Your task to perform on an android device: open app "Messenger Lite" (install if not already installed) Image 0: 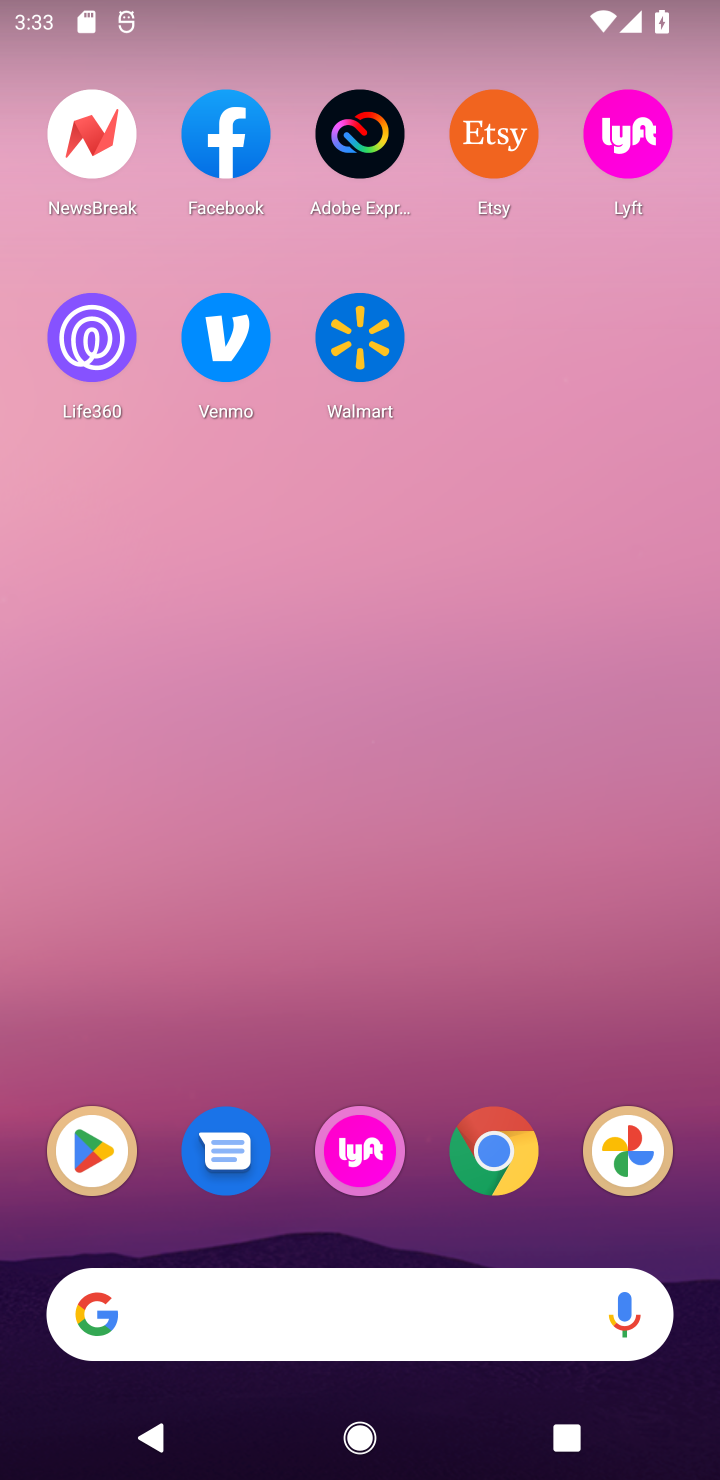
Step 0: press home button
Your task to perform on an android device: open app "Messenger Lite" (install if not already installed) Image 1: 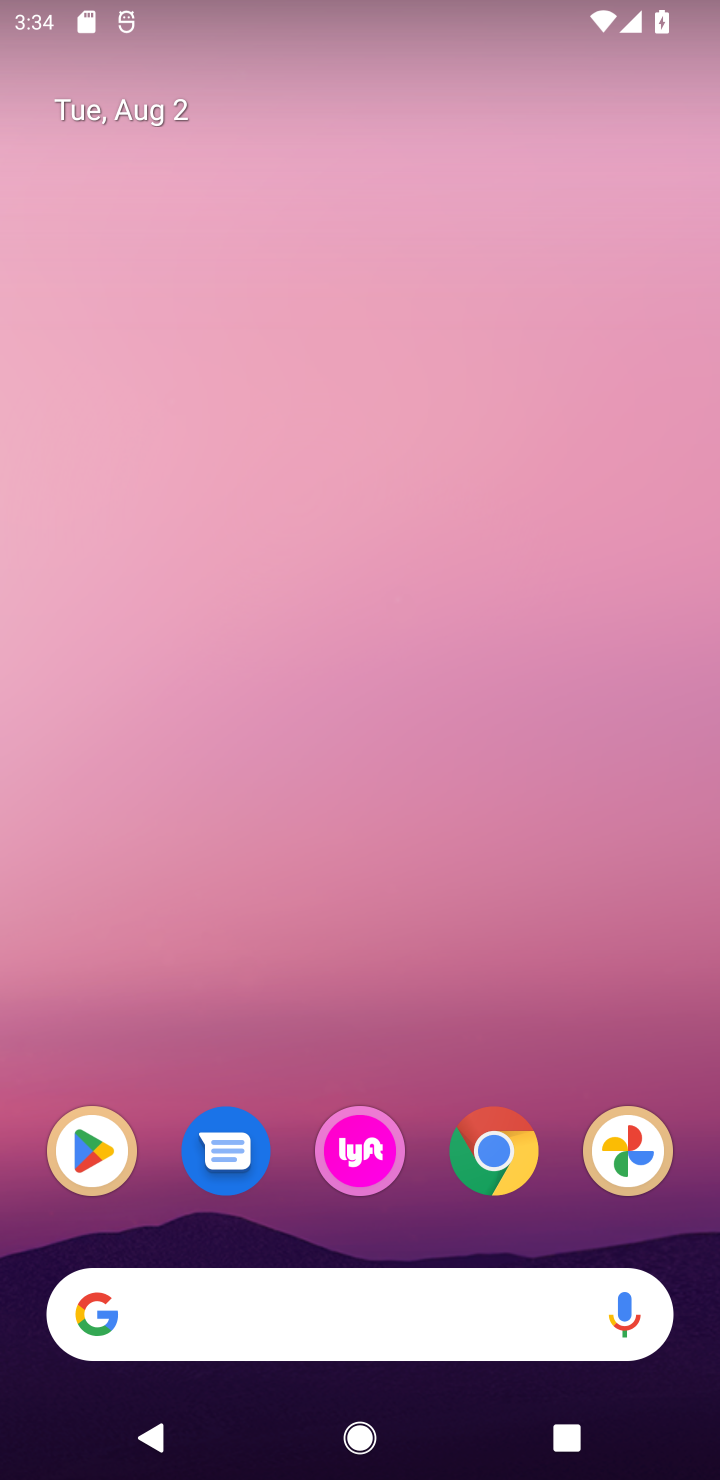
Step 1: drag from (422, 1449) to (316, 255)
Your task to perform on an android device: open app "Messenger Lite" (install if not already installed) Image 2: 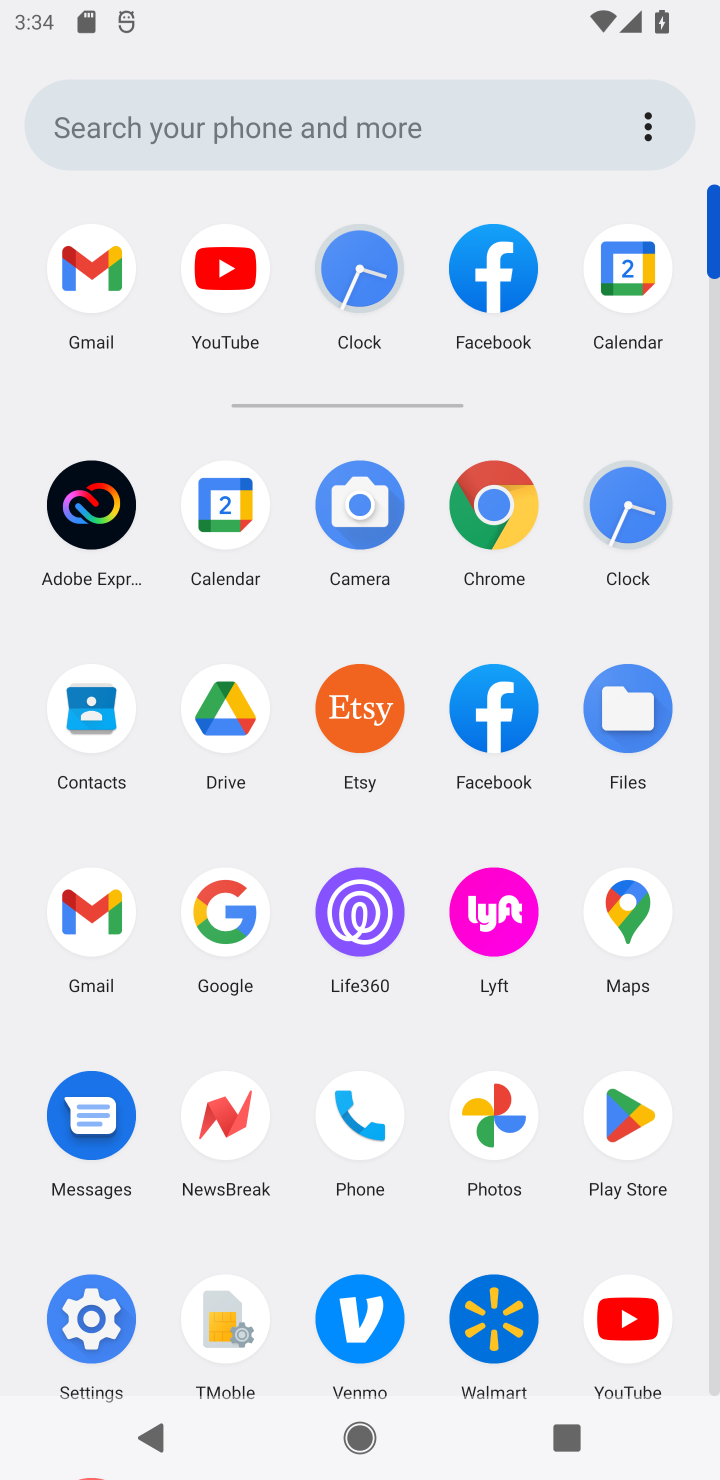
Step 2: click (626, 1102)
Your task to perform on an android device: open app "Messenger Lite" (install if not already installed) Image 3: 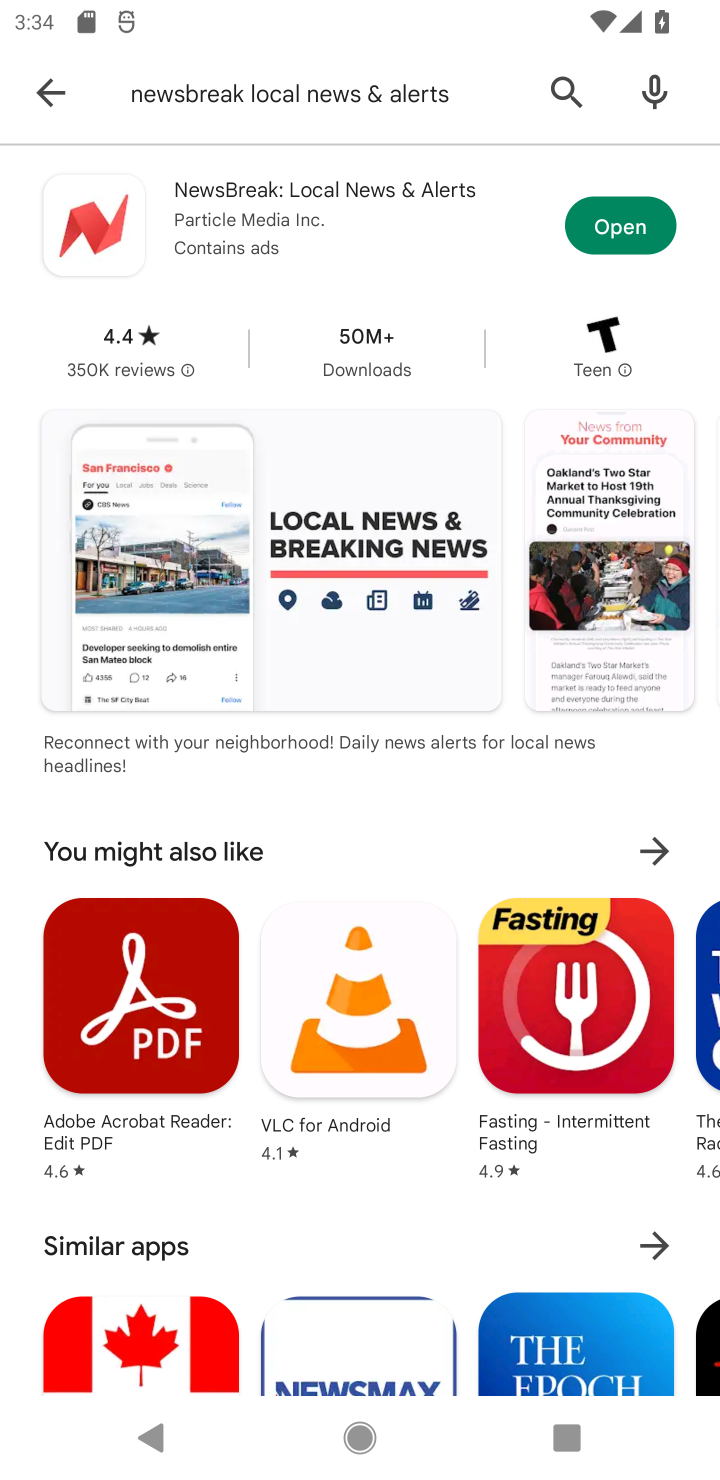
Step 3: click (563, 87)
Your task to perform on an android device: open app "Messenger Lite" (install if not already installed) Image 4: 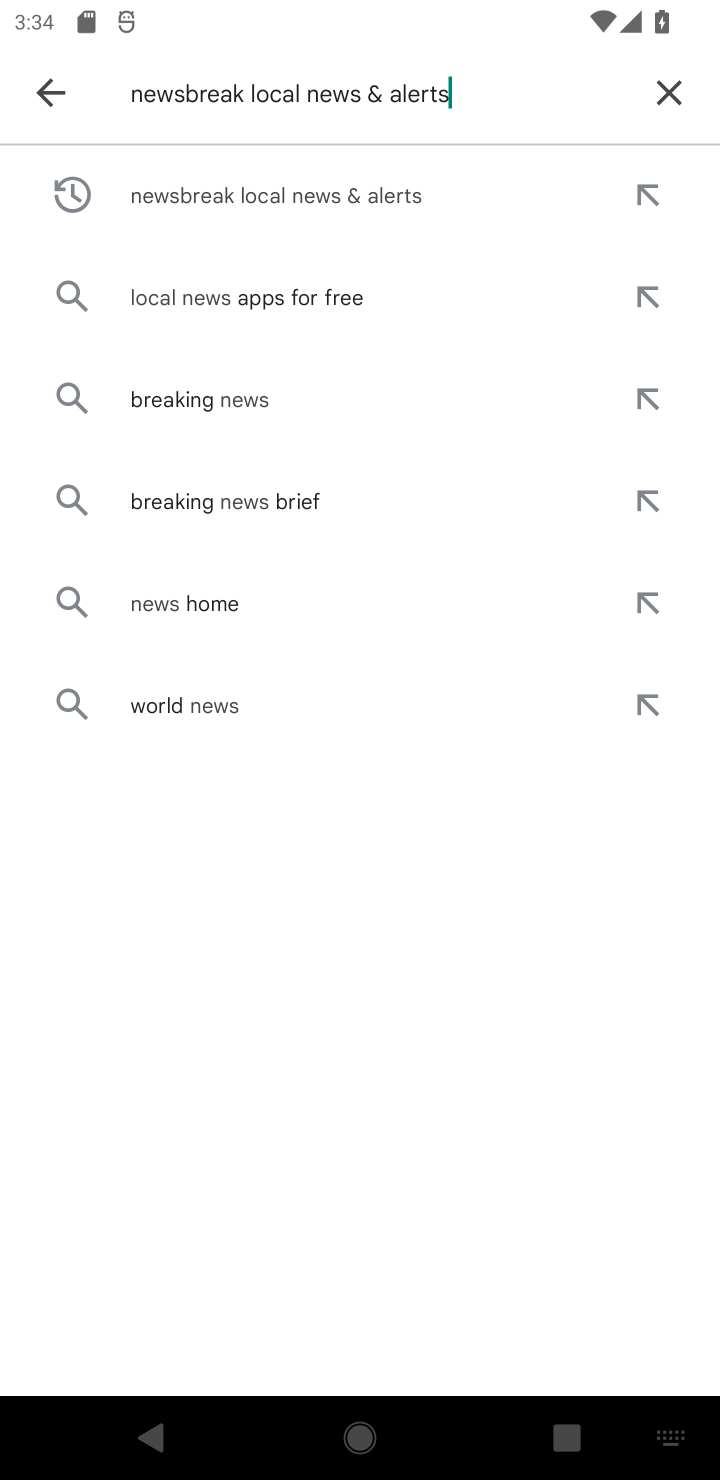
Step 4: click (671, 83)
Your task to perform on an android device: open app "Messenger Lite" (install if not already installed) Image 5: 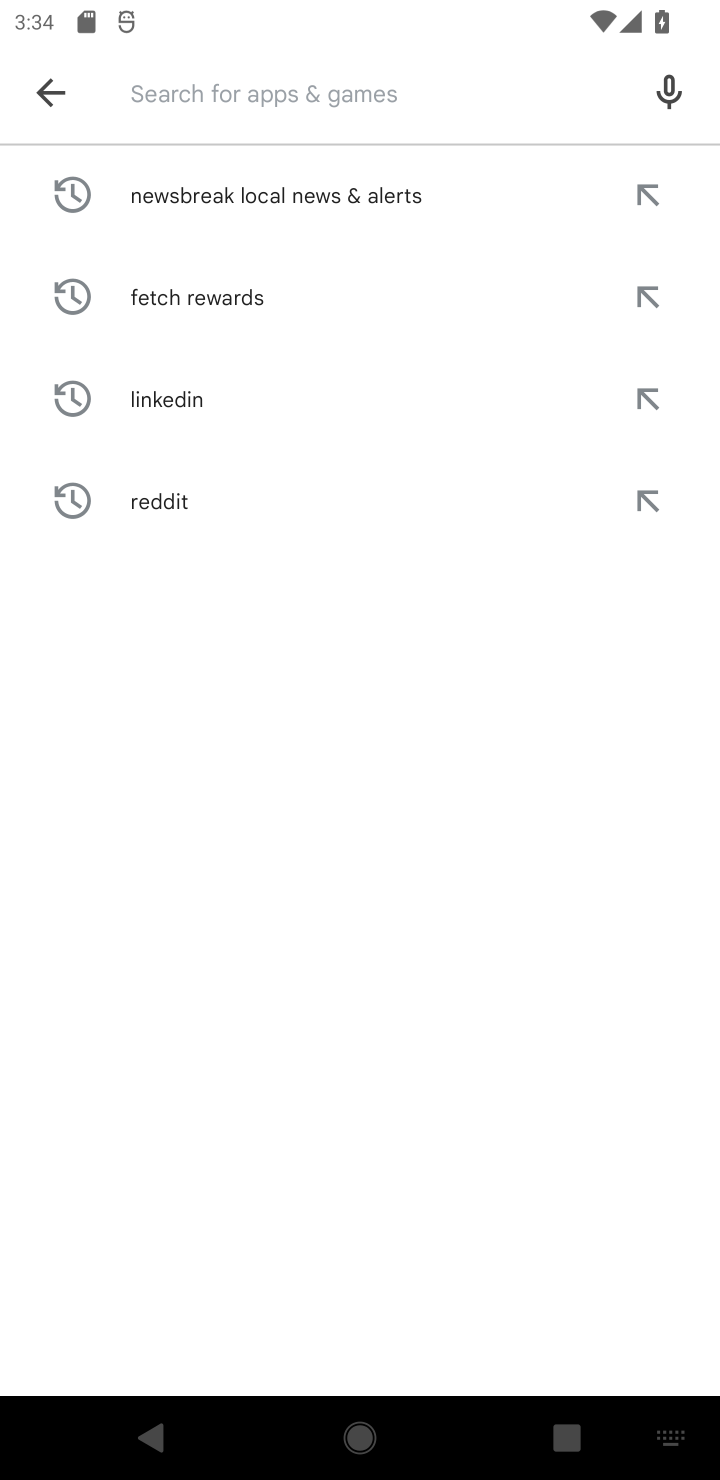
Step 5: type "Messenger Lite"
Your task to perform on an android device: open app "Messenger Lite" (install if not already installed) Image 6: 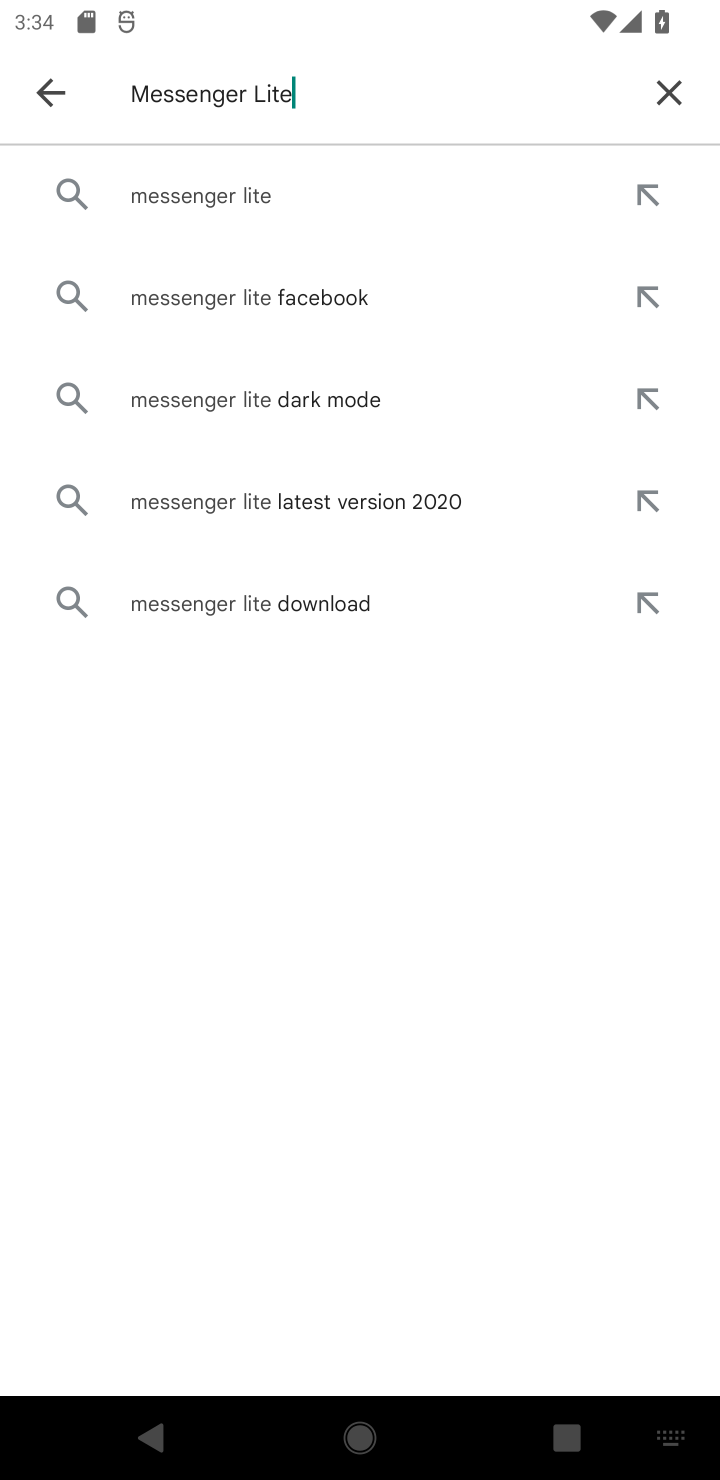
Step 6: click (201, 190)
Your task to perform on an android device: open app "Messenger Lite" (install if not already installed) Image 7: 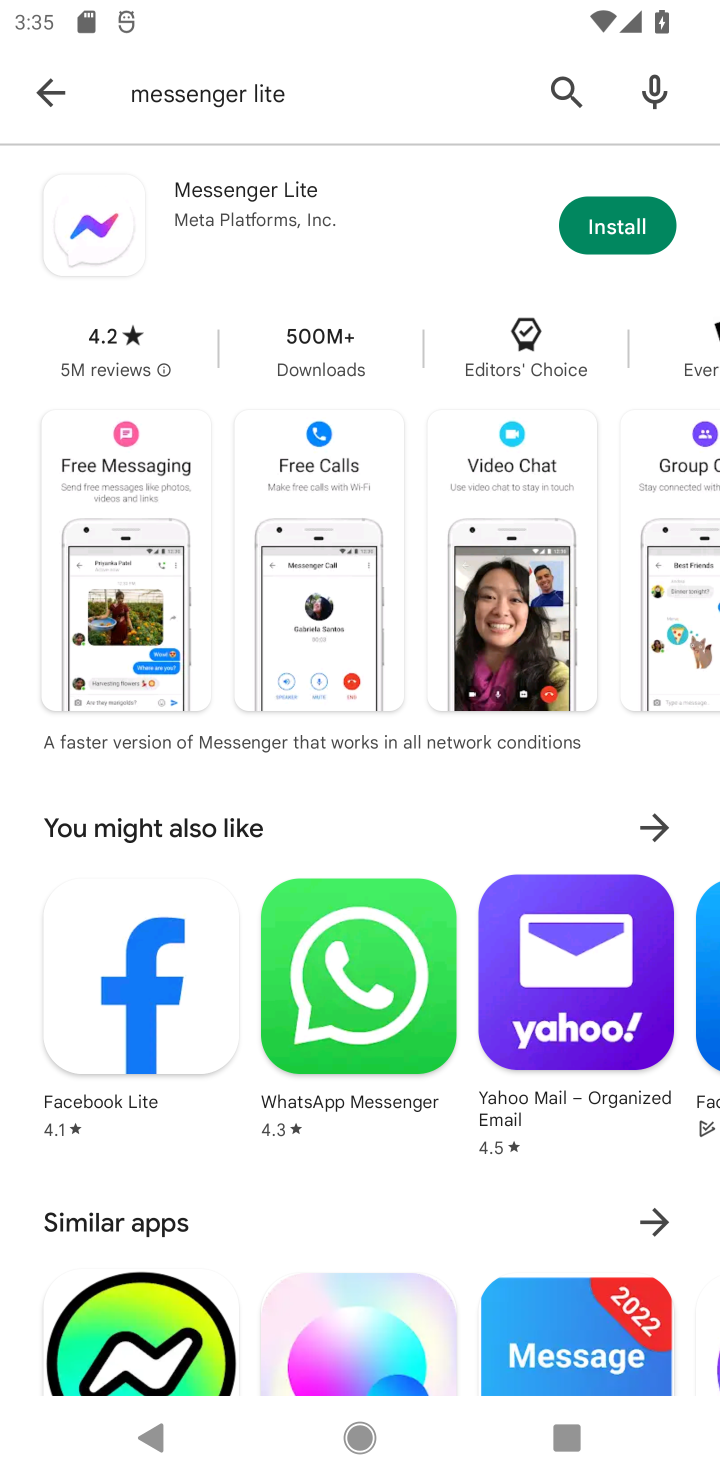
Step 7: click (633, 216)
Your task to perform on an android device: open app "Messenger Lite" (install if not already installed) Image 8: 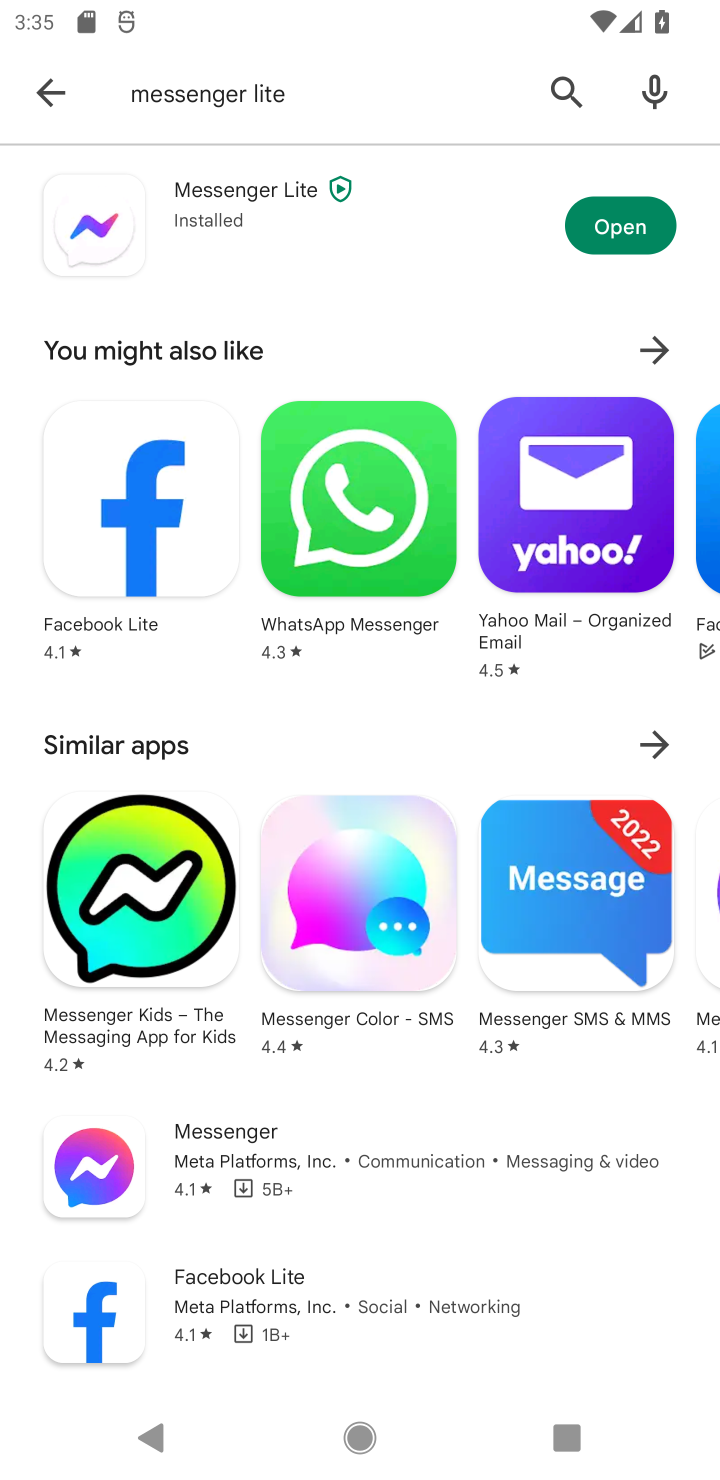
Step 8: task complete